Your task to perform on an android device: Go to settings Image 0: 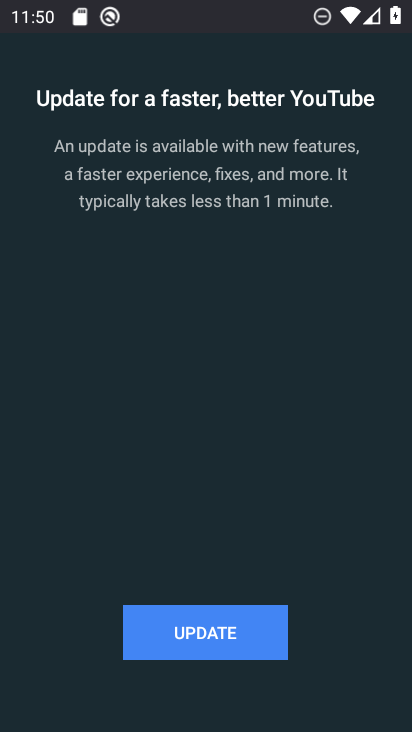
Step 0: press home button
Your task to perform on an android device: Go to settings Image 1: 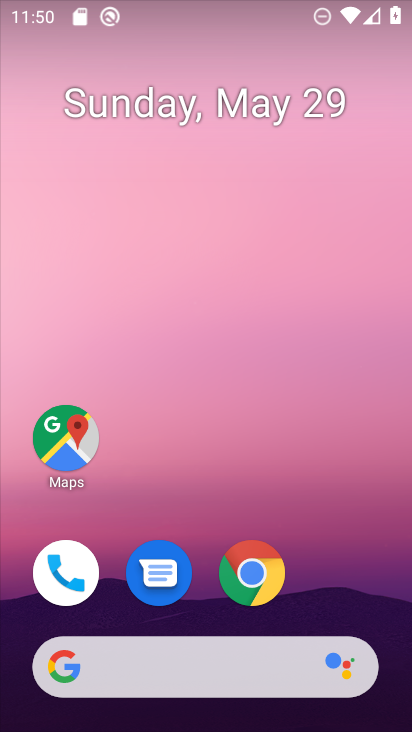
Step 1: drag from (321, 602) to (343, 133)
Your task to perform on an android device: Go to settings Image 2: 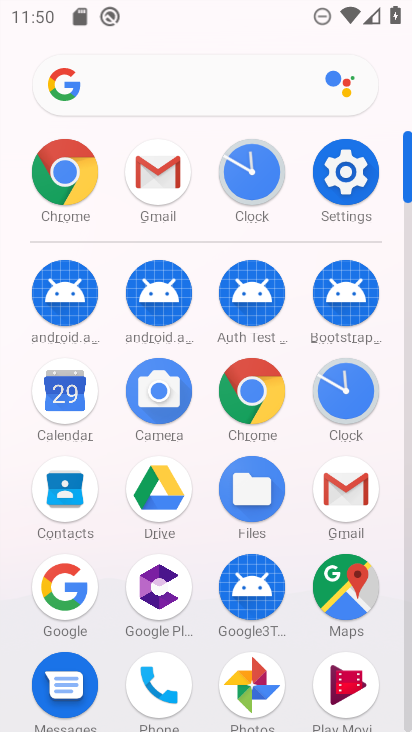
Step 2: click (349, 171)
Your task to perform on an android device: Go to settings Image 3: 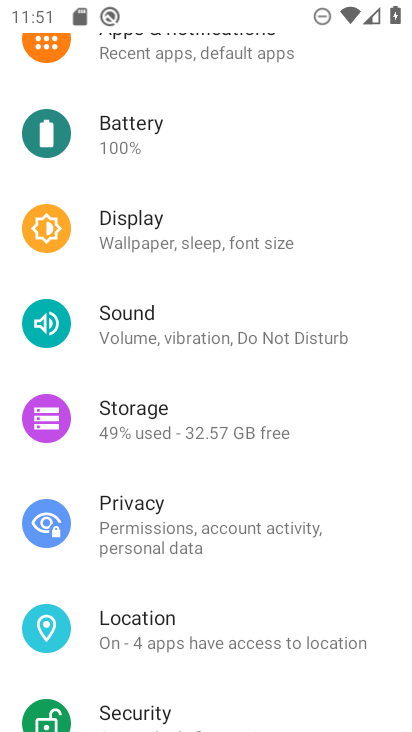
Step 3: task complete